Your task to perform on an android device: View the shopping cart on ebay. Search for "lenovo thinkpad" on ebay, select the first entry, and add it to the cart. Image 0: 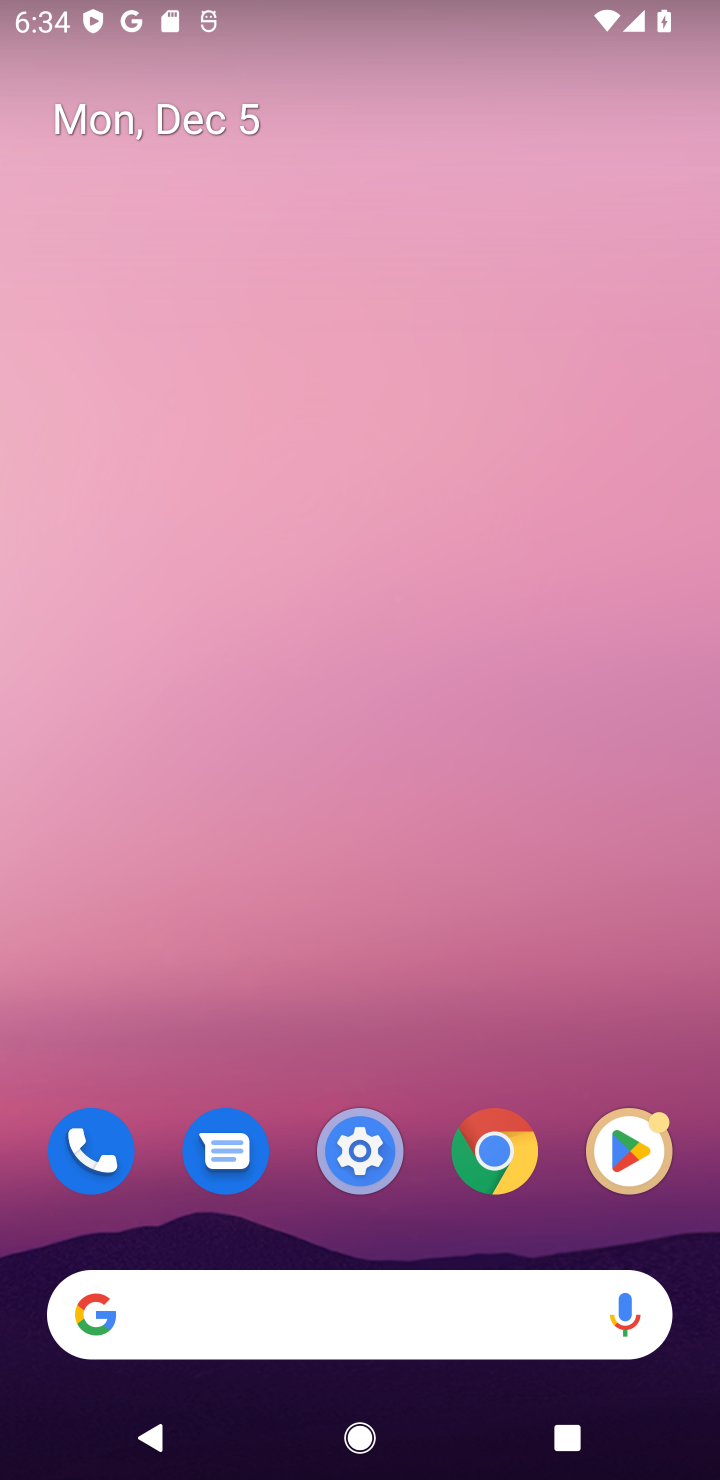
Step 0: click (441, 1303)
Your task to perform on an android device: View the shopping cart on ebay. Search for "lenovo thinkpad" on ebay, select the first entry, and add it to the cart. Image 1: 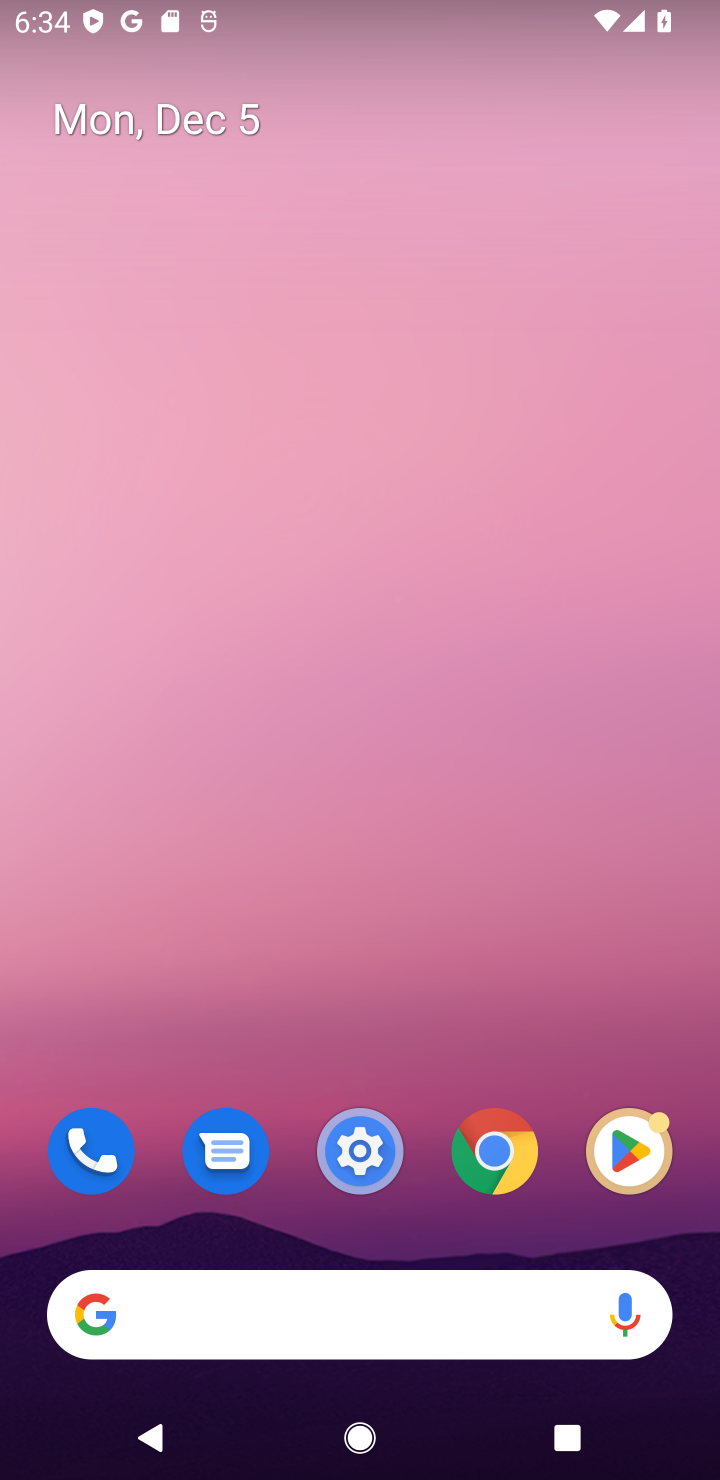
Step 1: click (441, 1303)
Your task to perform on an android device: View the shopping cart on ebay. Search for "lenovo thinkpad" on ebay, select the first entry, and add it to the cart. Image 2: 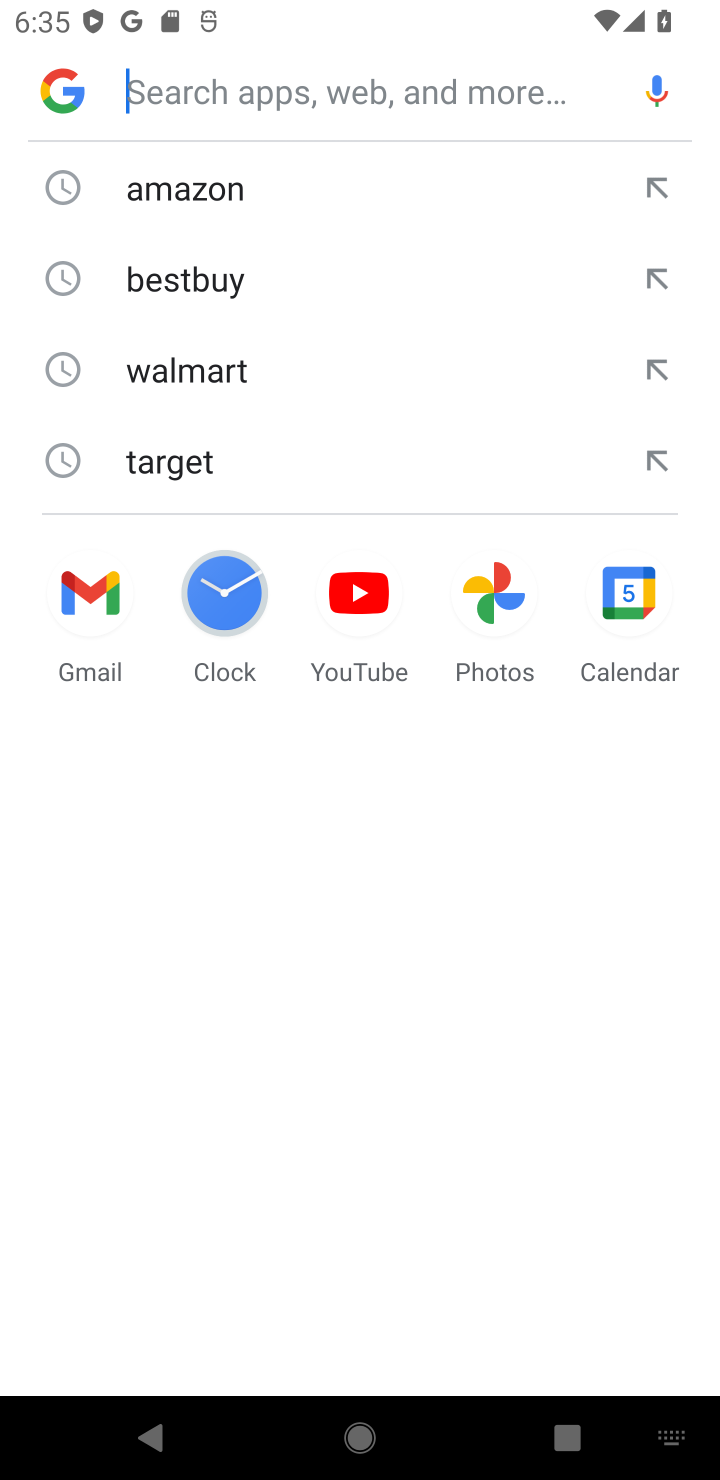
Step 2: type "ebay"
Your task to perform on an android device: View the shopping cart on ebay. Search for "lenovo thinkpad" on ebay, select the first entry, and add it to the cart. Image 3: 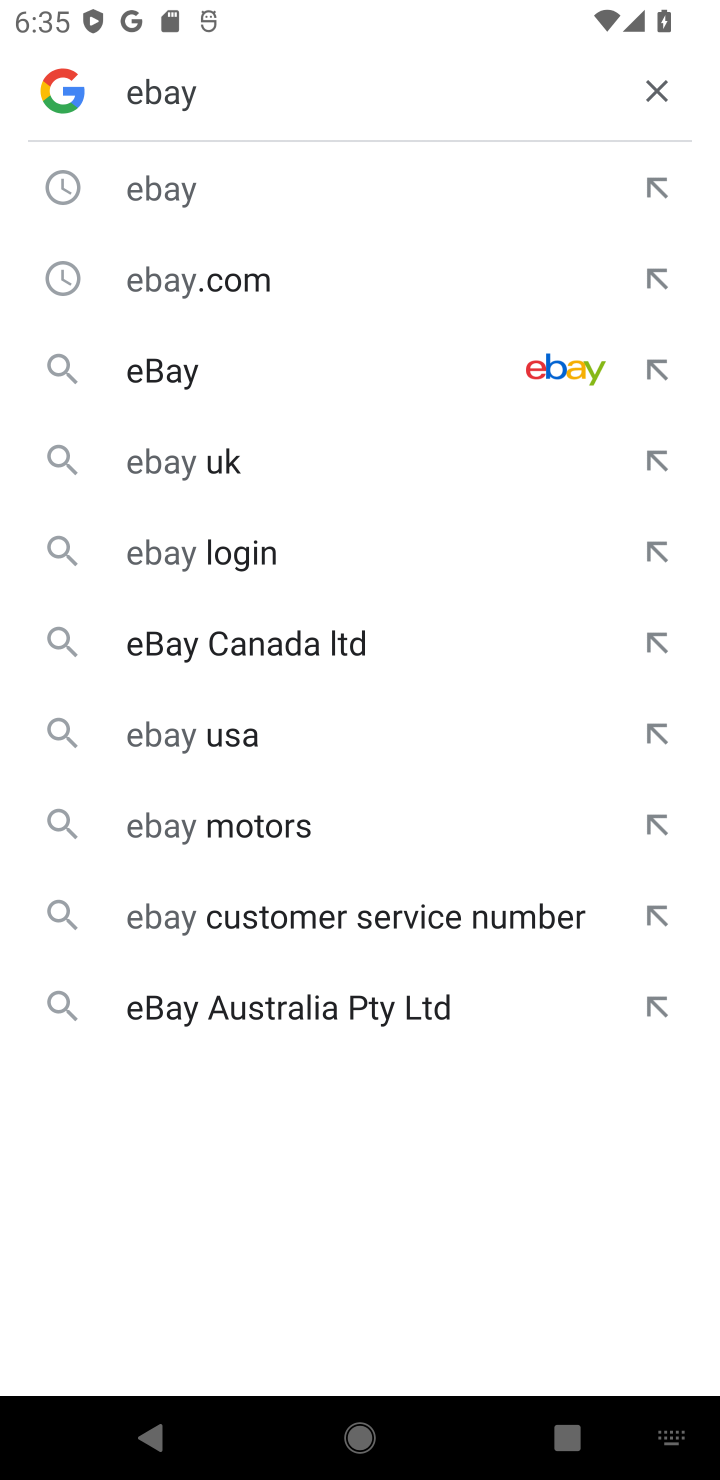
Step 3: click (383, 177)
Your task to perform on an android device: View the shopping cart on ebay. Search for "lenovo thinkpad" on ebay, select the first entry, and add it to the cart. Image 4: 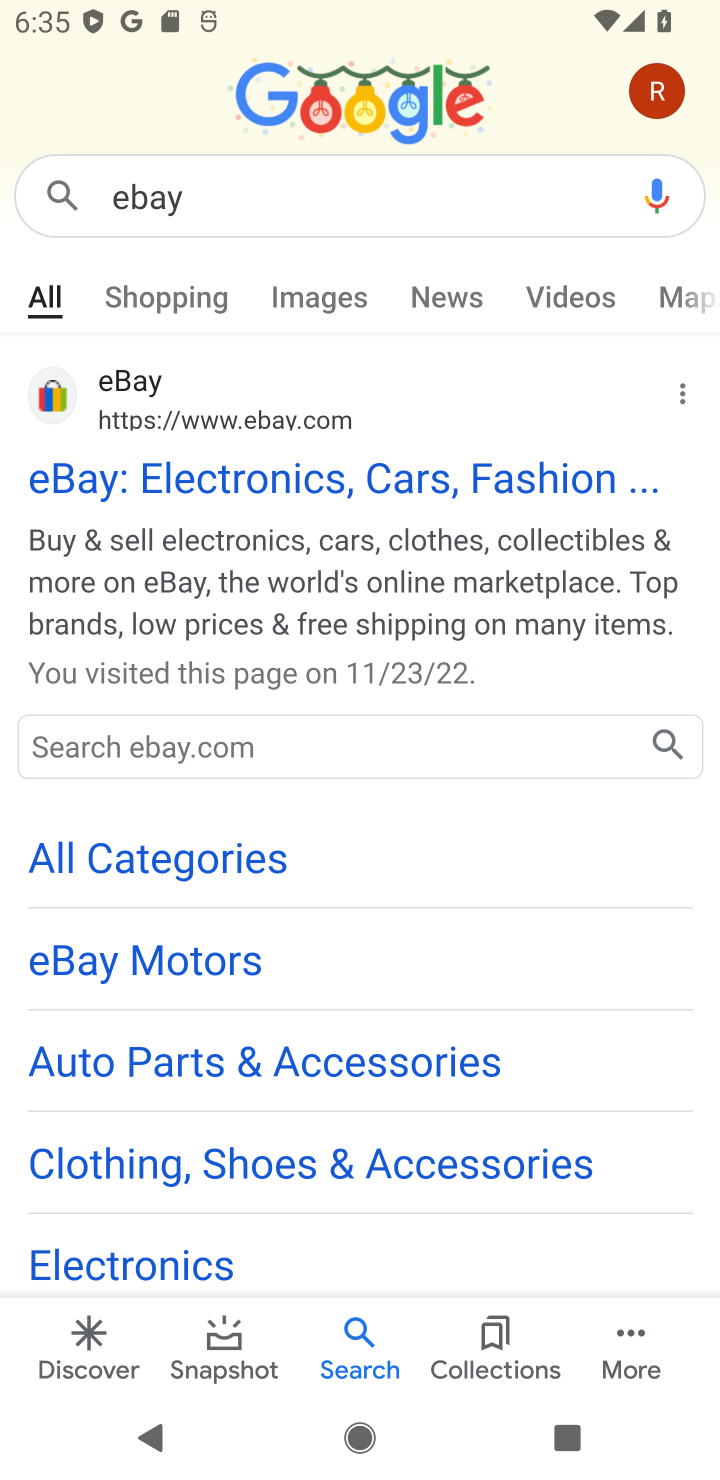
Step 4: click (402, 458)
Your task to perform on an android device: View the shopping cart on ebay. Search for "lenovo thinkpad" on ebay, select the first entry, and add it to the cart. Image 5: 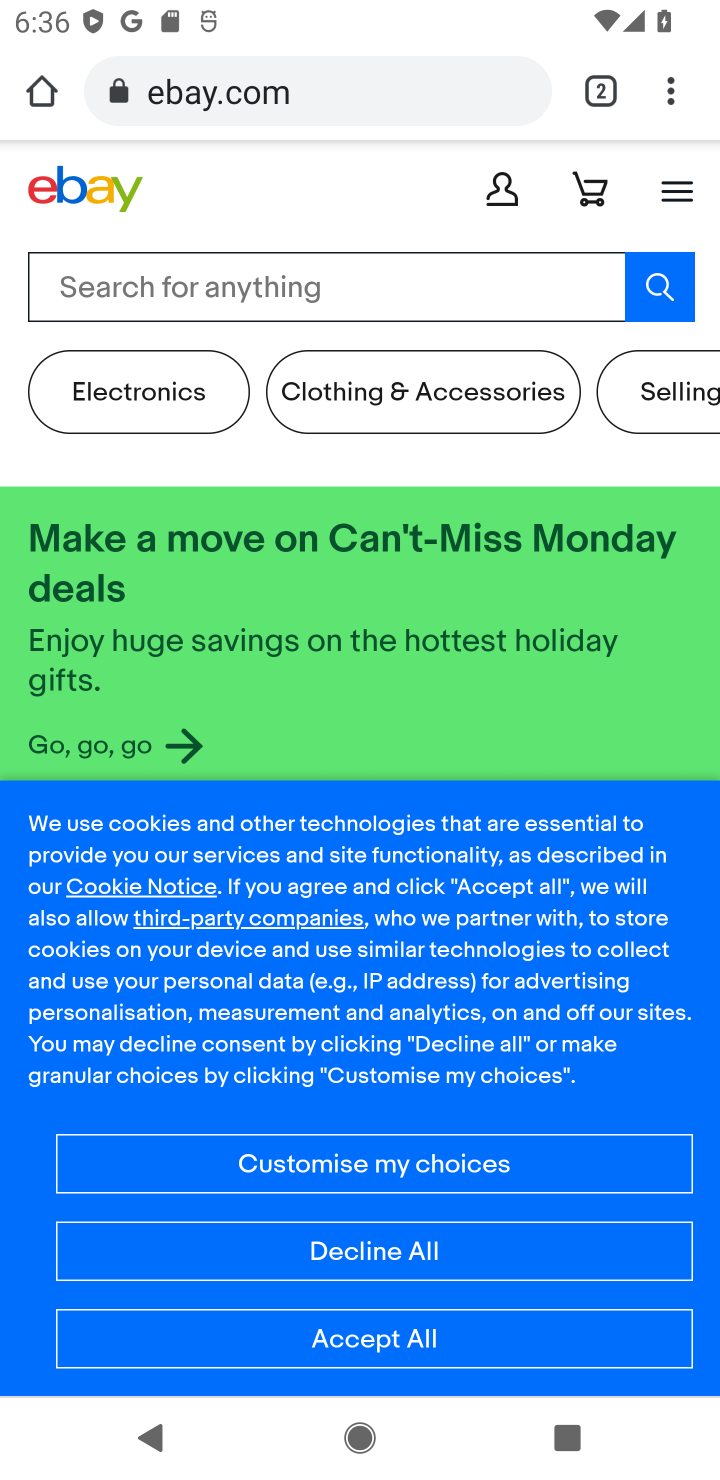
Step 5: task complete